Your task to perform on an android device: Open the stopwatch Image 0: 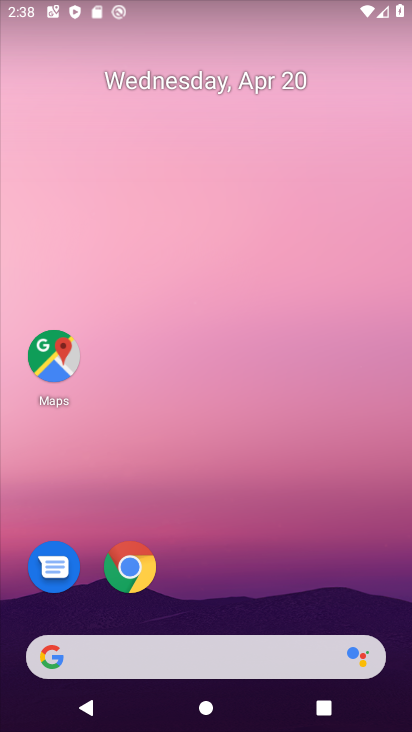
Step 0: drag from (206, 602) to (289, 0)
Your task to perform on an android device: Open the stopwatch Image 1: 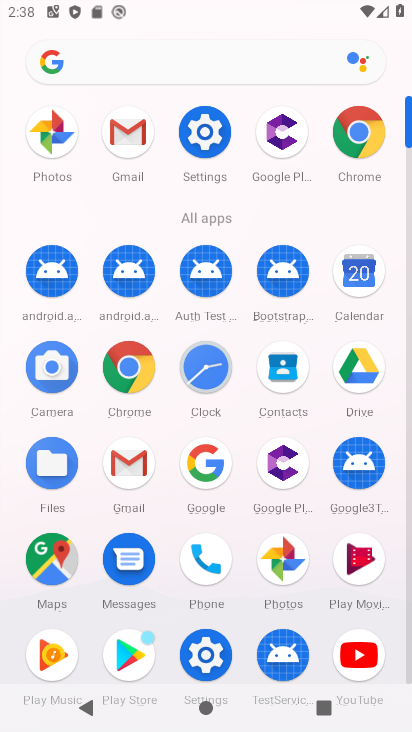
Step 1: click (203, 380)
Your task to perform on an android device: Open the stopwatch Image 2: 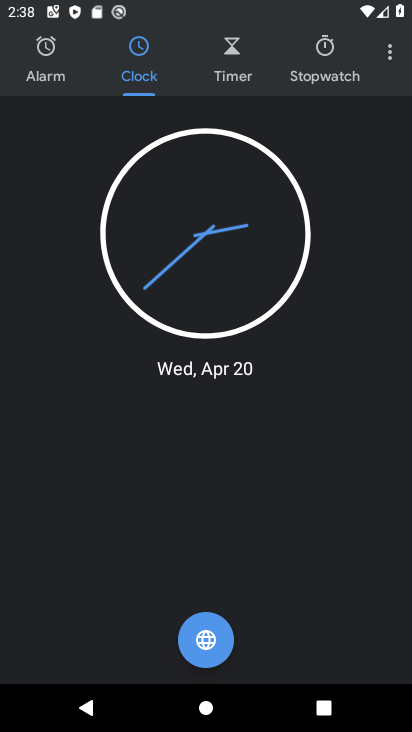
Step 2: click (329, 63)
Your task to perform on an android device: Open the stopwatch Image 3: 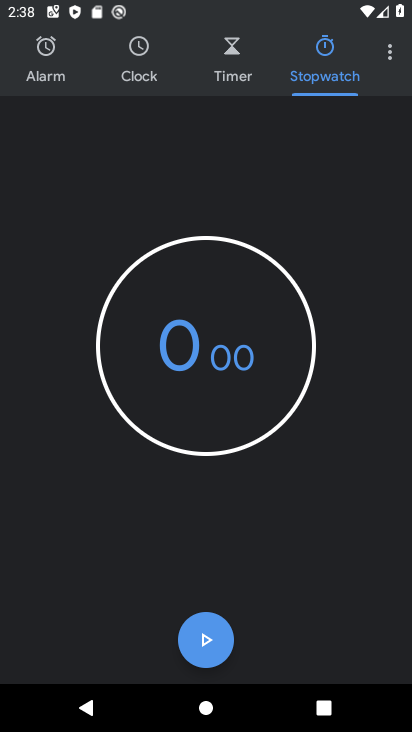
Step 3: task complete